Your task to perform on an android device: turn off sleep mode Image 0: 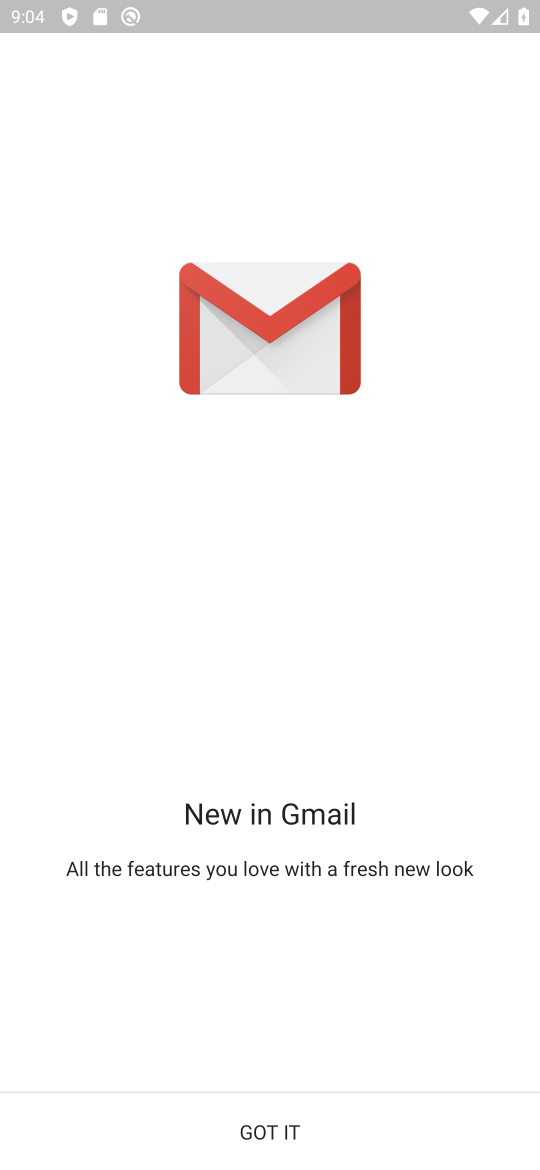
Step 0: press home button
Your task to perform on an android device: turn off sleep mode Image 1: 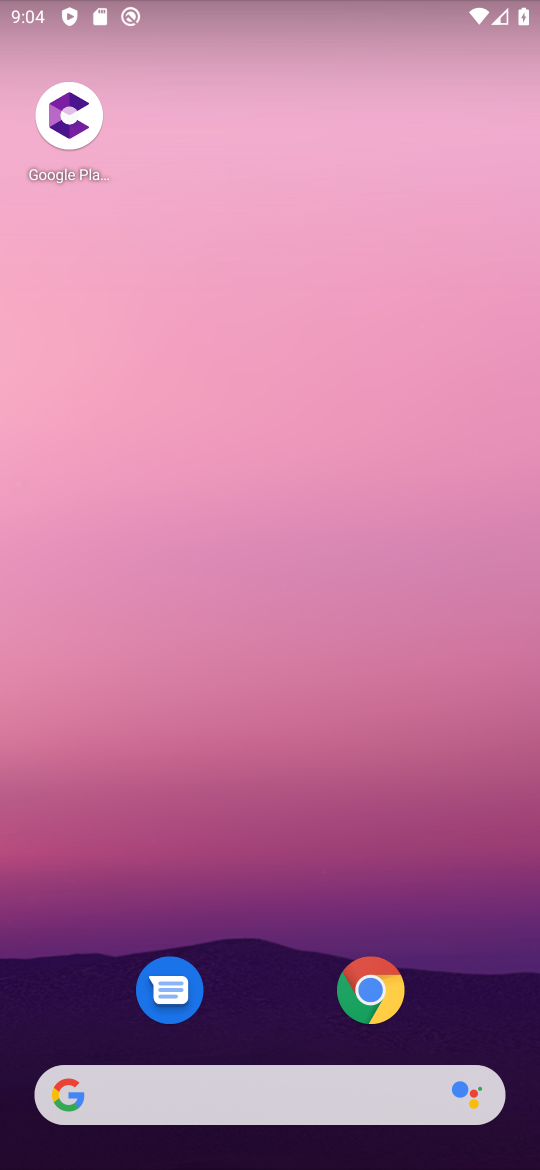
Step 1: drag from (305, 934) to (260, 120)
Your task to perform on an android device: turn off sleep mode Image 2: 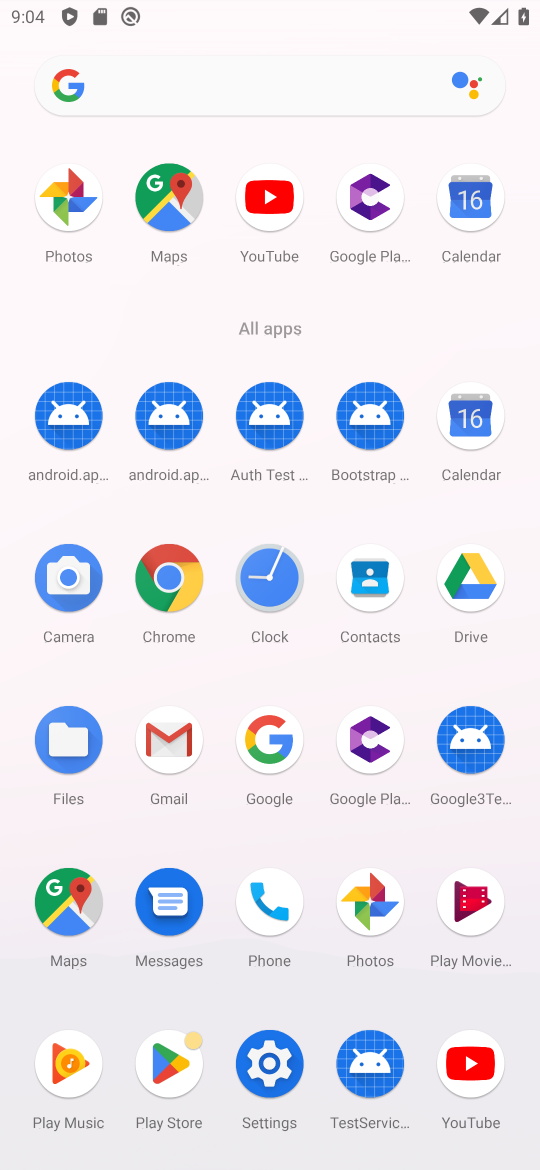
Step 2: click (243, 1056)
Your task to perform on an android device: turn off sleep mode Image 3: 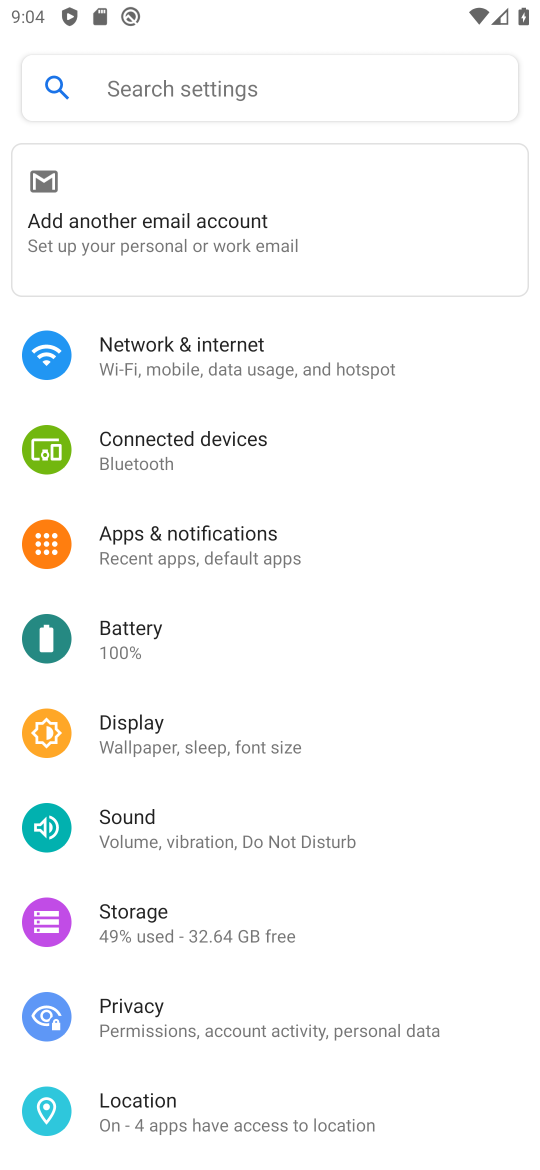
Step 3: drag from (360, 773) to (304, 424)
Your task to perform on an android device: turn off sleep mode Image 4: 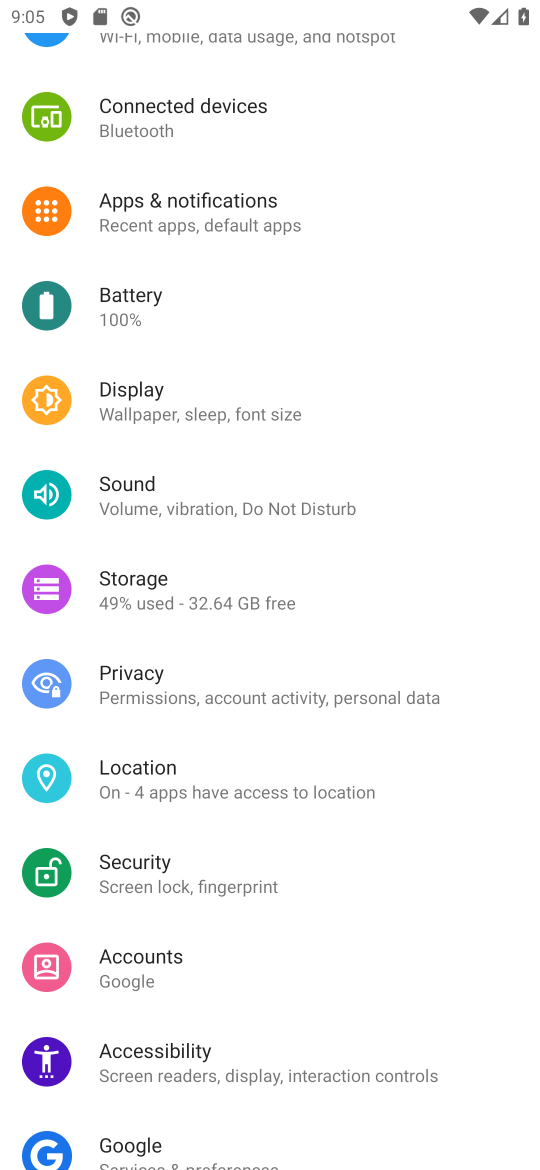
Step 4: click (235, 416)
Your task to perform on an android device: turn off sleep mode Image 5: 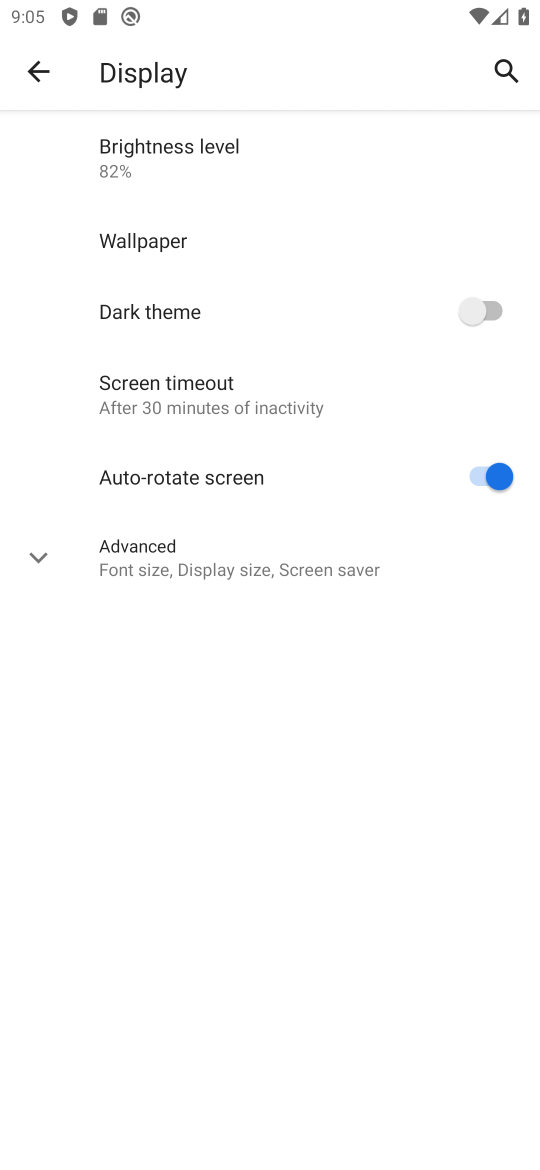
Step 5: task complete